Your task to perform on an android device: What's the weather going to be this weekend? Image 0: 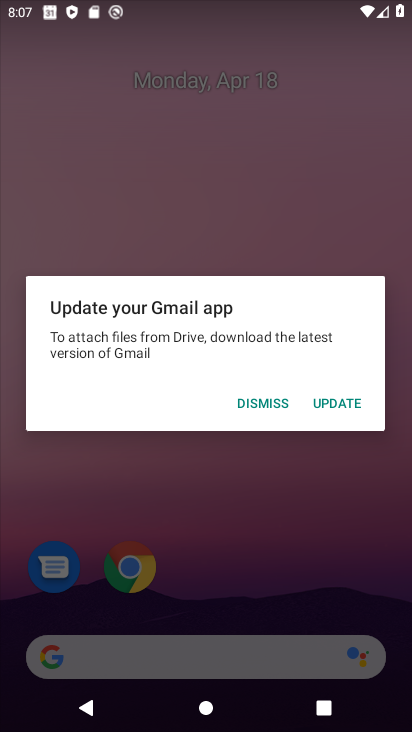
Step 0: click (253, 400)
Your task to perform on an android device: What's the weather going to be this weekend? Image 1: 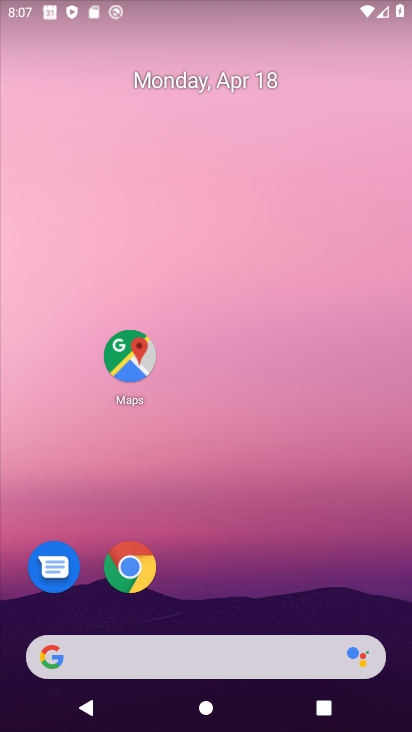
Step 1: drag from (314, 666) to (409, 68)
Your task to perform on an android device: What's the weather going to be this weekend? Image 2: 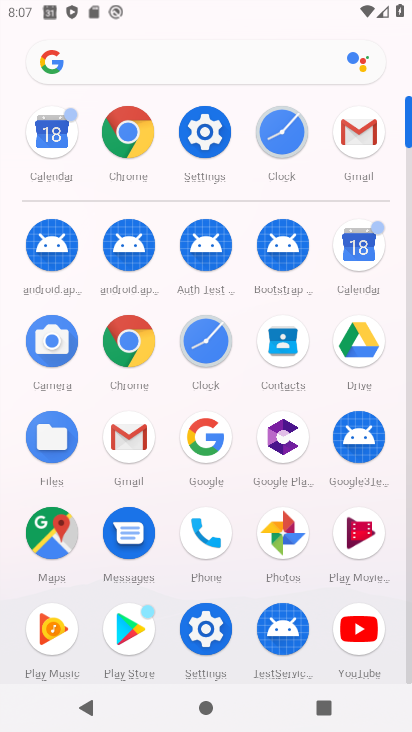
Step 2: click (358, 246)
Your task to perform on an android device: What's the weather going to be this weekend? Image 3: 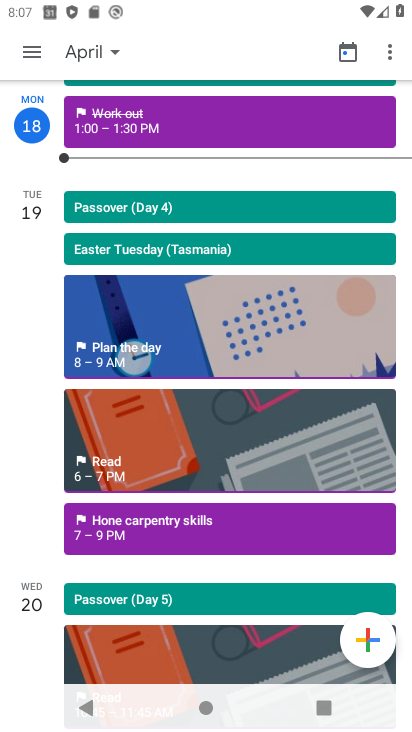
Step 3: click (53, 49)
Your task to perform on an android device: What's the weather going to be this weekend? Image 4: 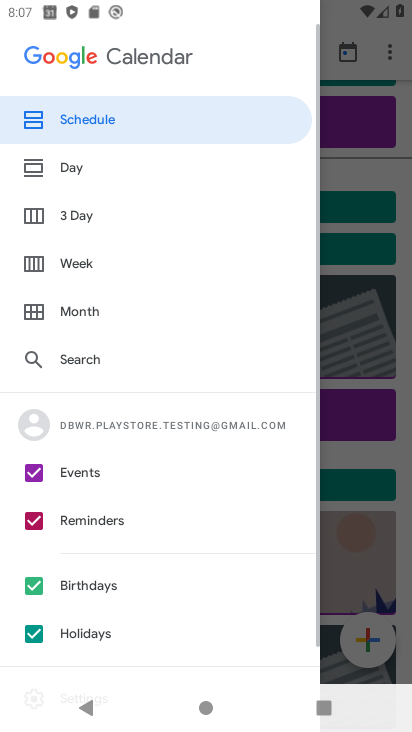
Step 4: click (206, 705)
Your task to perform on an android device: What's the weather going to be this weekend? Image 5: 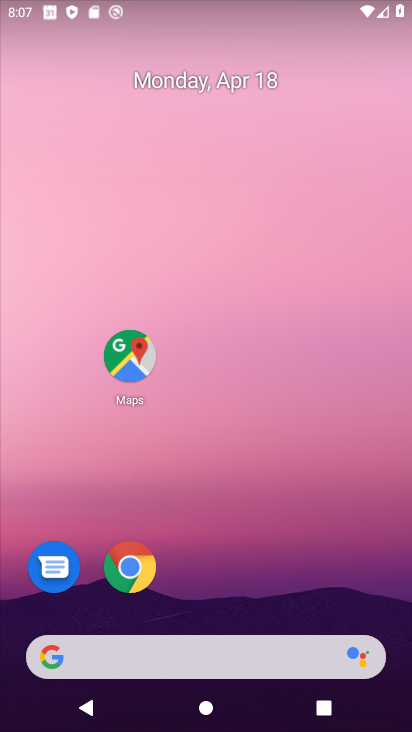
Step 5: click (82, 663)
Your task to perform on an android device: What's the weather going to be this weekend? Image 6: 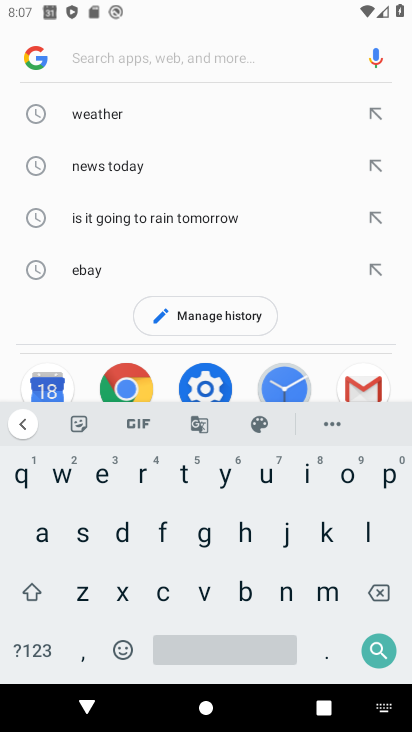
Step 6: click (105, 103)
Your task to perform on an android device: What's the weather going to be this weekend? Image 7: 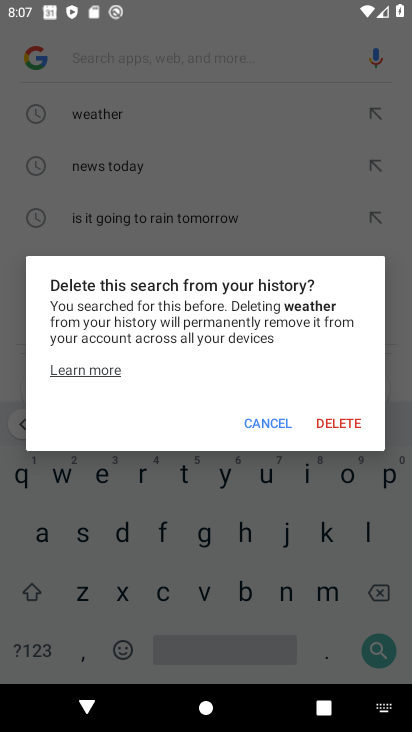
Step 7: click (277, 429)
Your task to perform on an android device: What's the weather going to be this weekend? Image 8: 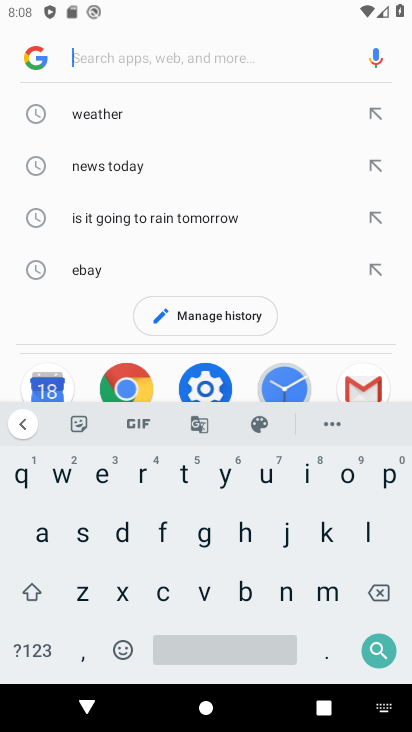
Step 8: click (101, 126)
Your task to perform on an android device: What's the weather going to be this weekend? Image 9: 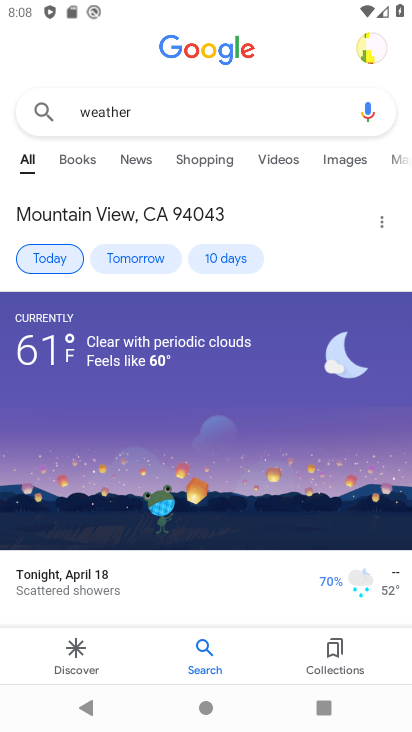
Step 9: click (213, 261)
Your task to perform on an android device: What's the weather going to be this weekend? Image 10: 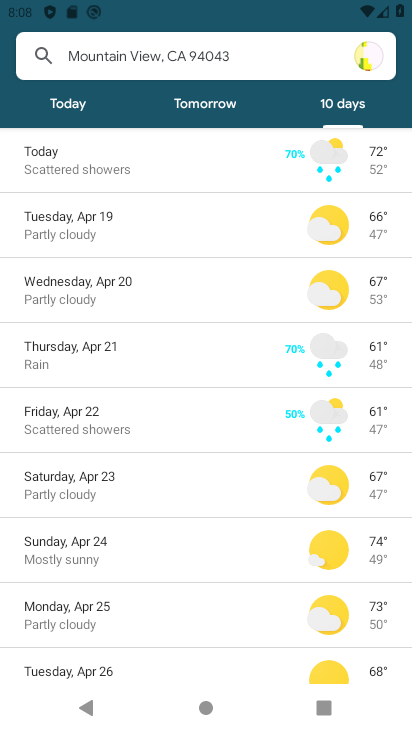
Step 10: task complete